Your task to perform on an android device: Open Chrome and go to settings Image 0: 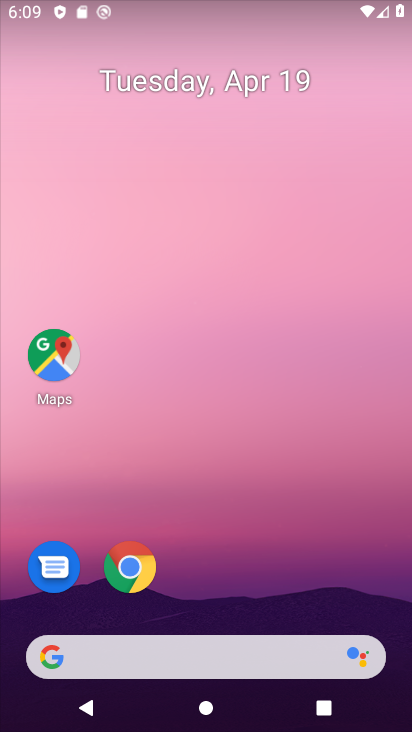
Step 0: click (115, 571)
Your task to perform on an android device: Open Chrome and go to settings Image 1: 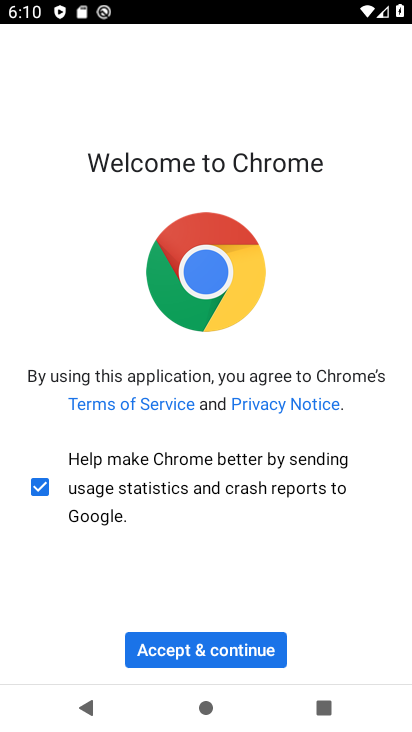
Step 1: click (228, 659)
Your task to perform on an android device: Open Chrome and go to settings Image 2: 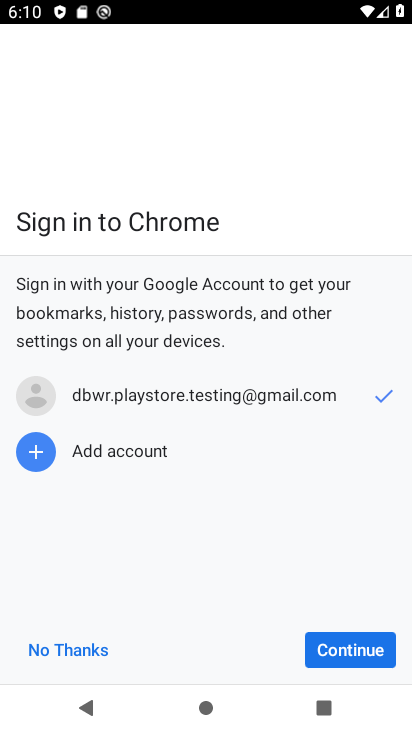
Step 2: click (347, 646)
Your task to perform on an android device: Open Chrome and go to settings Image 3: 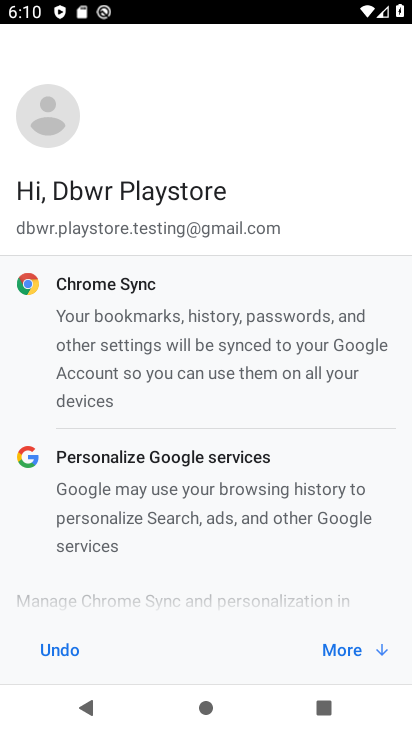
Step 3: click (347, 646)
Your task to perform on an android device: Open Chrome and go to settings Image 4: 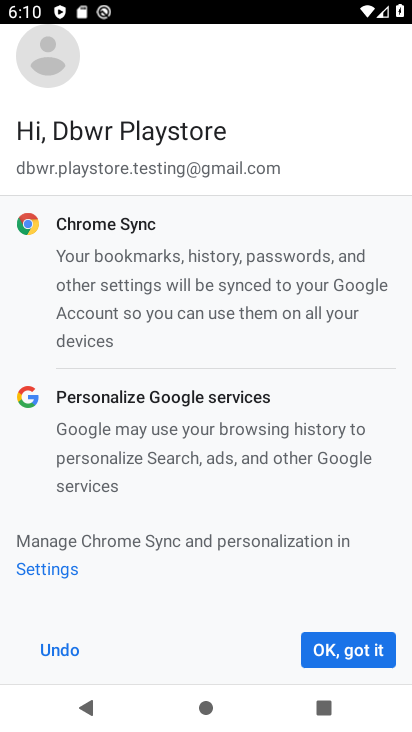
Step 4: click (347, 646)
Your task to perform on an android device: Open Chrome and go to settings Image 5: 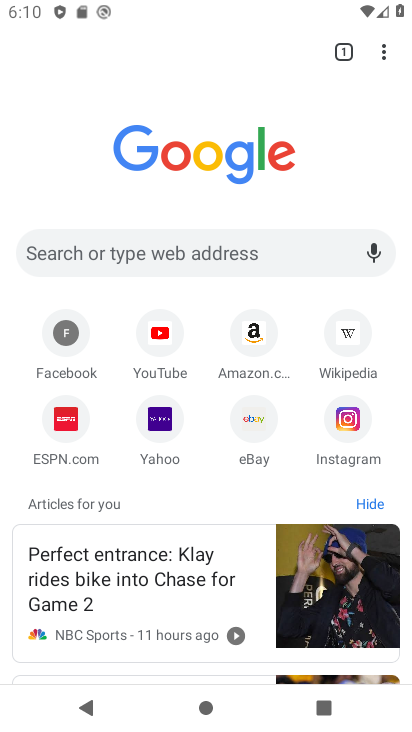
Step 5: task complete